Your task to perform on an android device: allow cookies in the chrome app Image 0: 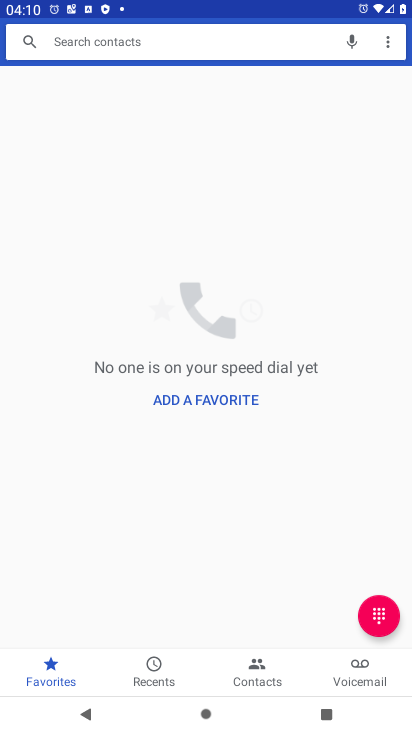
Step 0: press home button
Your task to perform on an android device: allow cookies in the chrome app Image 1: 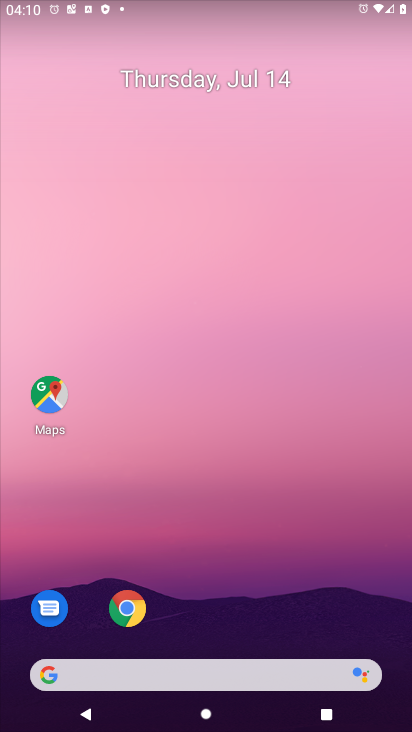
Step 1: click (130, 608)
Your task to perform on an android device: allow cookies in the chrome app Image 2: 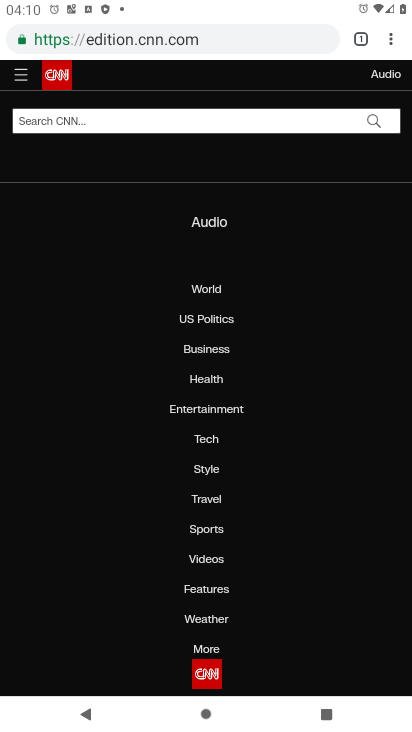
Step 2: click (390, 41)
Your task to perform on an android device: allow cookies in the chrome app Image 3: 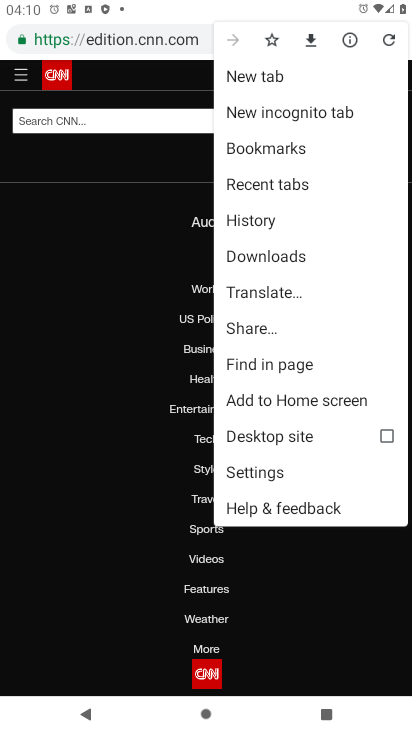
Step 3: click (257, 472)
Your task to perform on an android device: allow cookies in the chrome app Image 4: 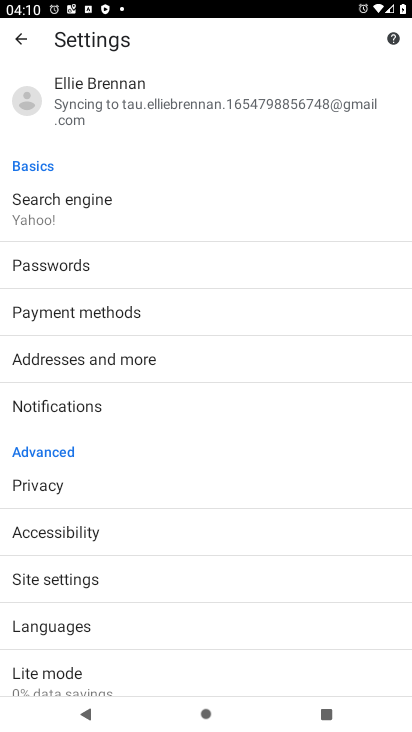
Step 4: click (42, 587)
Your task to perform on an android device: allow cookies in the chrome app Image 5: 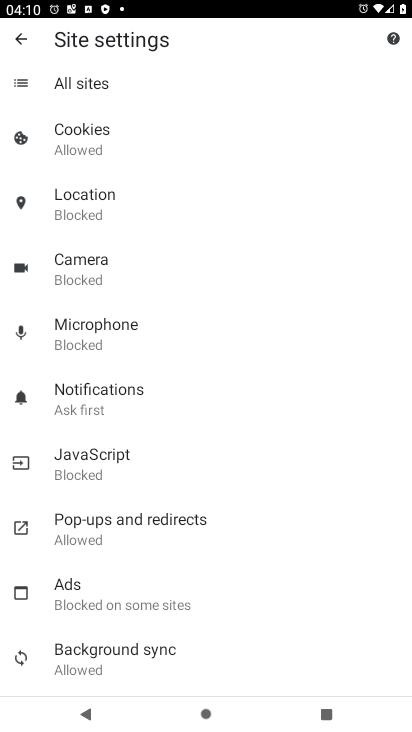
Step 5: click (61, 125)
Your task to perform on an android device: allow cookies in the chrome app Image 6: 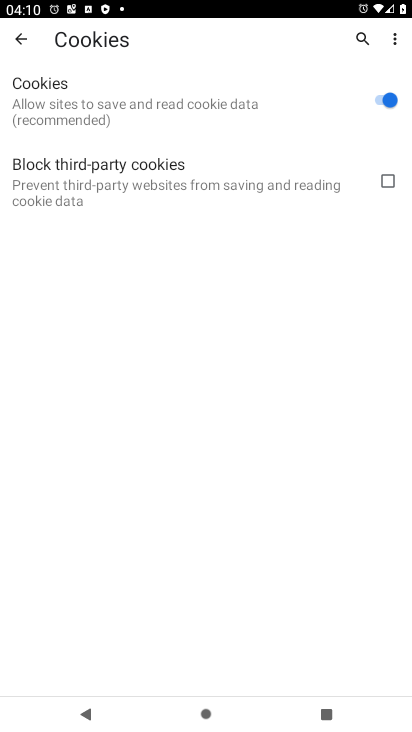
Step 6: task complete